Your task to perform on an android device: remove spam from my inbox in the gmail app Image 0: 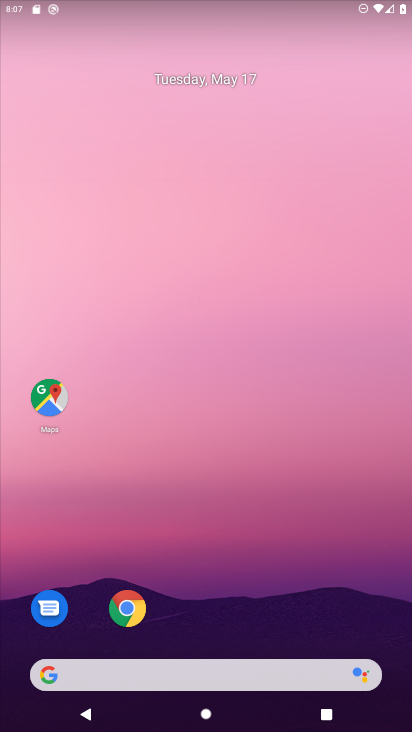
Step 0: drag from (213, 631) to (232, 72)
Your task to perform on an android device: remove spam from my inbox in the gmail app Image 1: 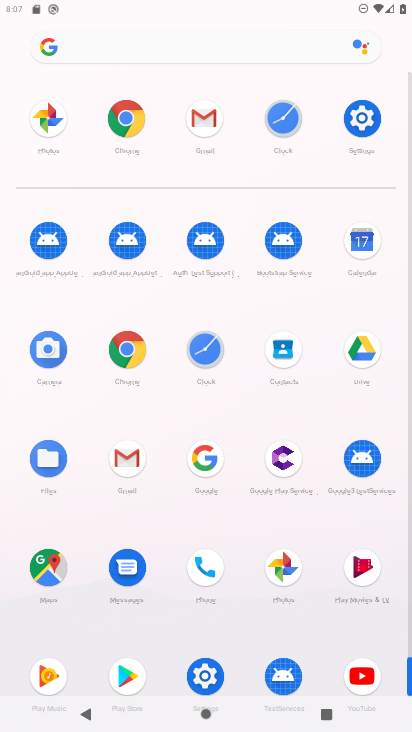
Step 1: click (131, 459)
Your task to perform on an android device: remove spam from my inbox in the gmail app Image 2: 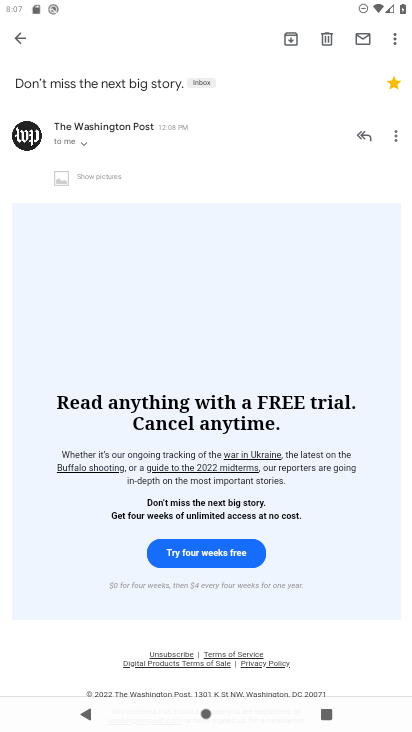
Step 2: click (18, 38)
Your task to perform on an android device: remove spam from my inbox in the gmail app Image 3: 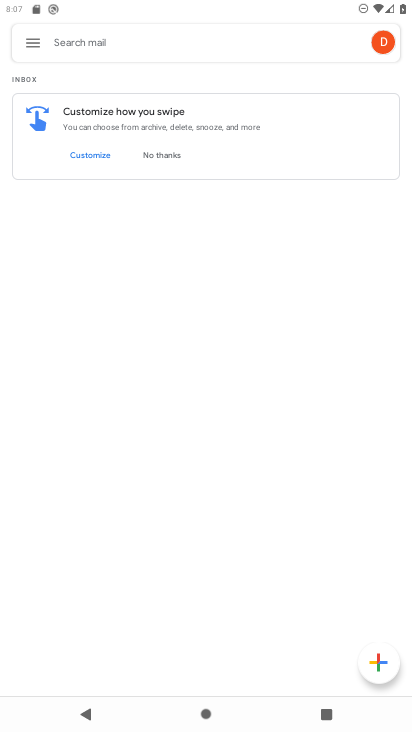
Step 3: click (27, 41)
Your task to perform on an android device: remove spam from my inbox in the gmail app Image 4: 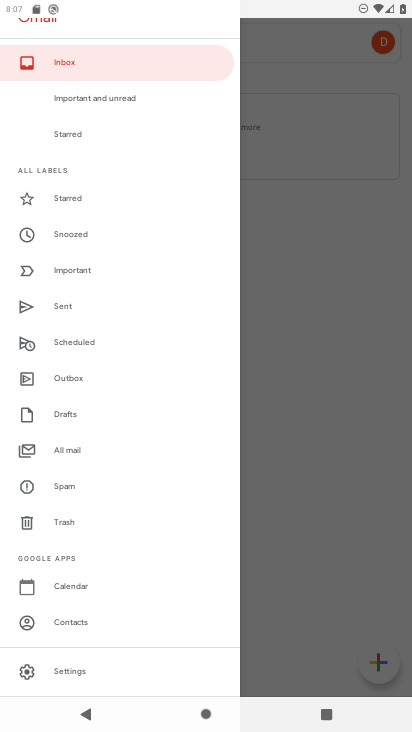
Step 4: drag from (86, 590) to (131, 246)
Your task to perform on an android device: remove spam from my inbox in the gmail app Image 5: 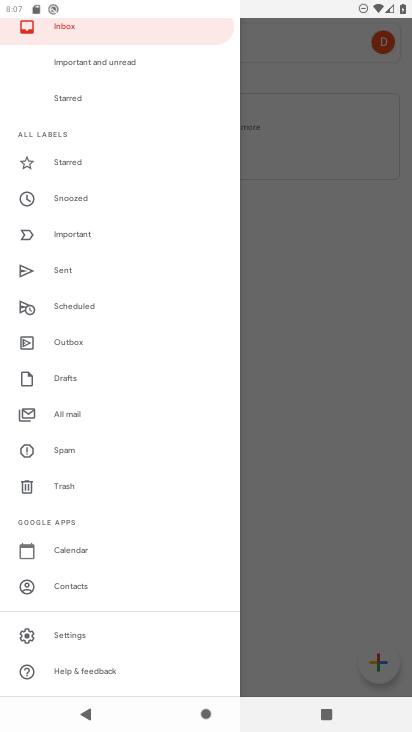
Step 5: click (59, 450)
Your task to perform on an android device: remove spam from my inbox in the gmail app Image 6: 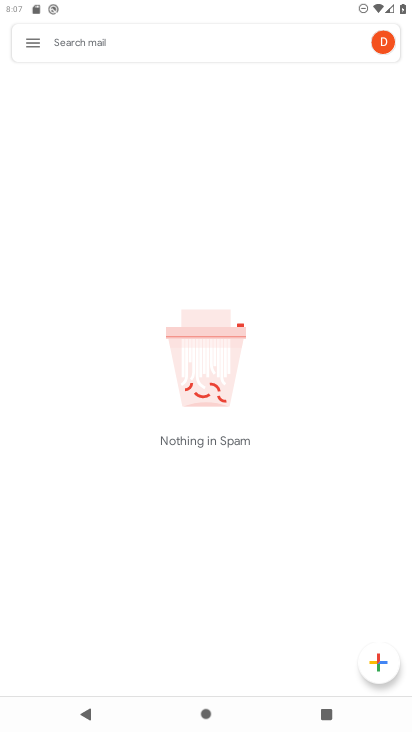
Step 6: task complete